Your task to perform on an android device: toggle sleep mode Image 0: 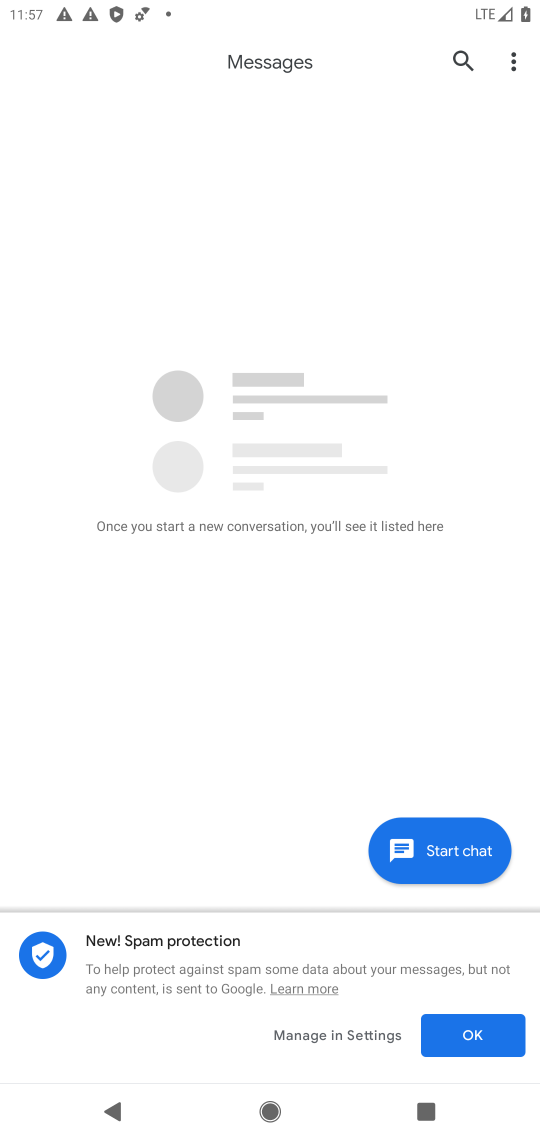
Step 0: press home button
Your task to perform on an android device: toggle sleep mode Image 1: 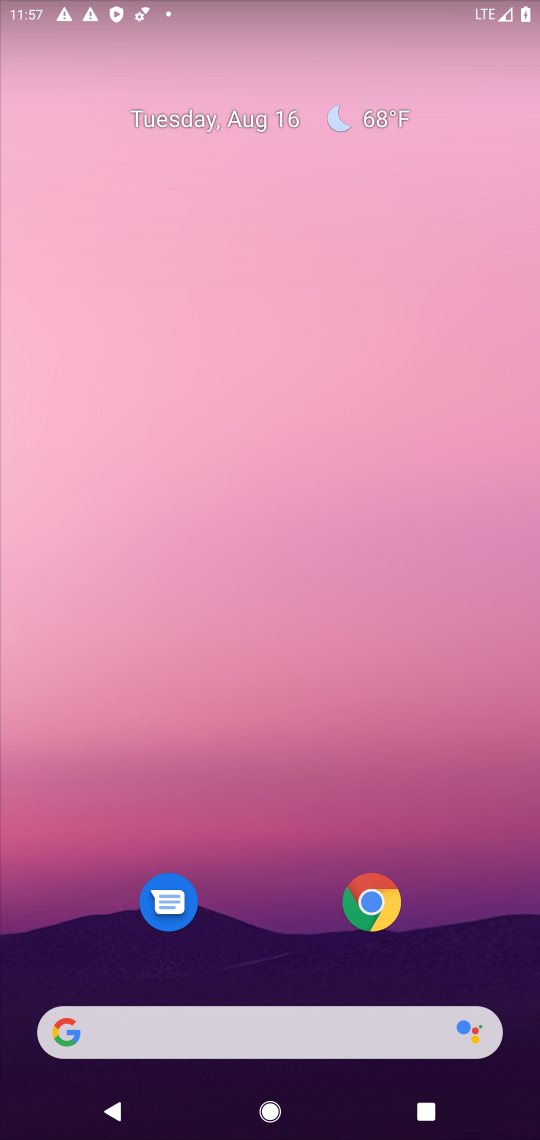
Step 1: drag from (219, 895) to (248, 184)
Your task to perform on an android device: toggle sleep mode Image 2: 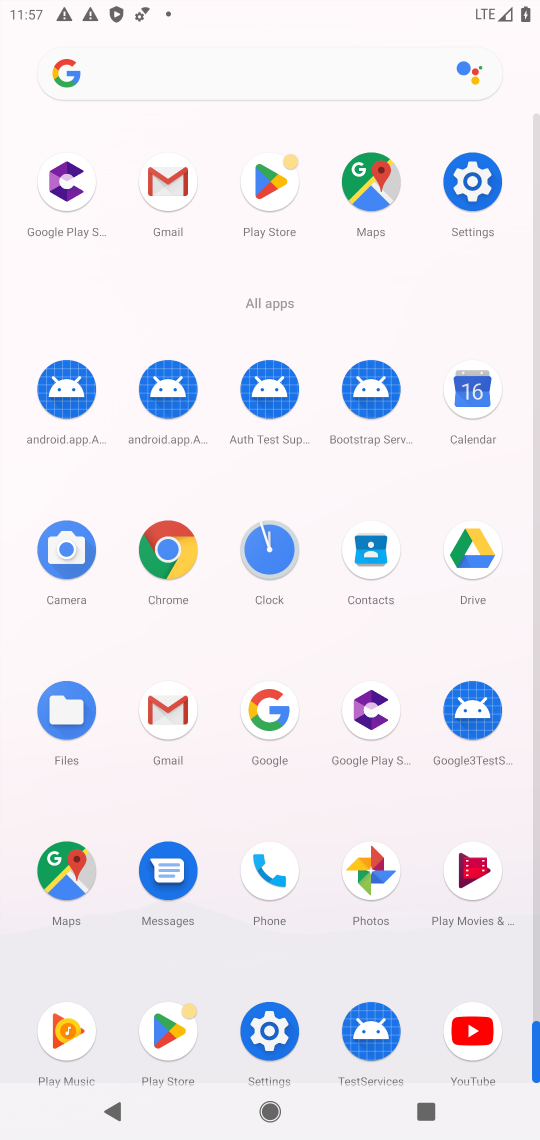
Step 2: click (263, 1017)
Your task to perform on an android device: toggle sleep mode Image 3: 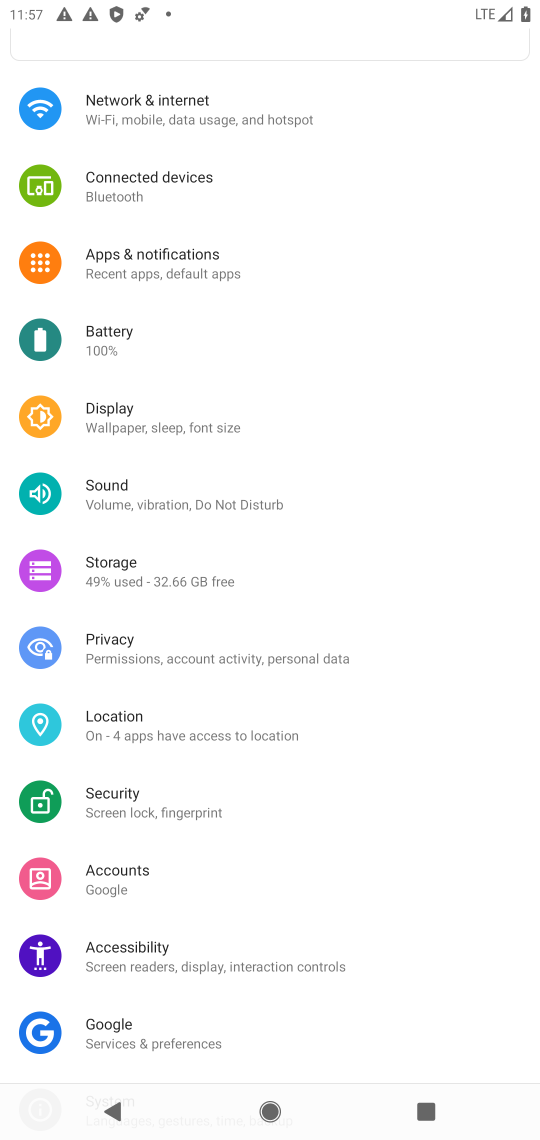
Step 3: drag from (268, 119) to (222, 1097)
Your task to perform on an android device: toggle sleep mode Image 4: 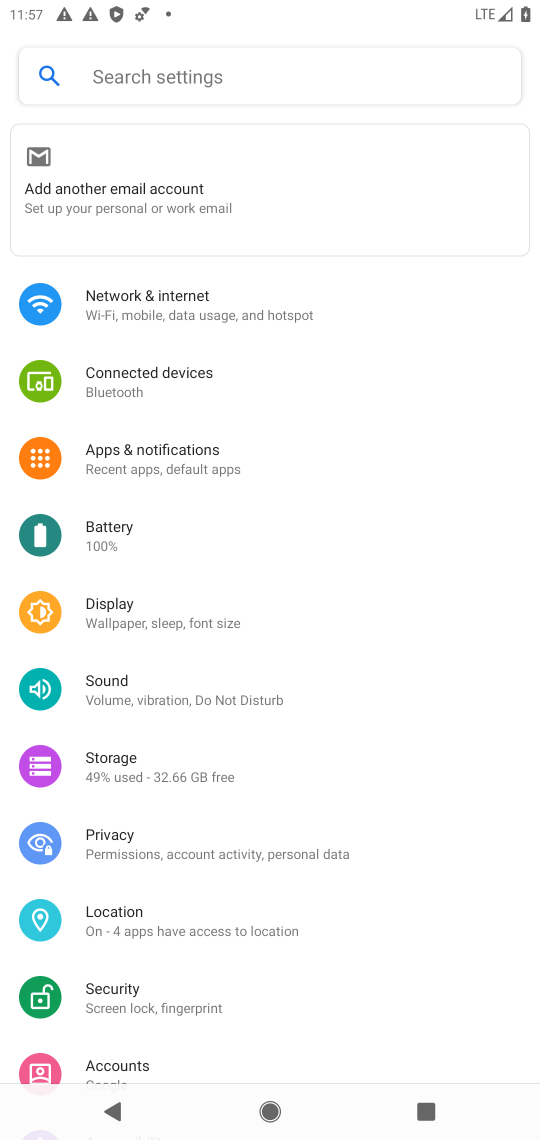
Step 4: click (281, 53)
Your task to perform on an android device: toggle sleep mode Image 5: 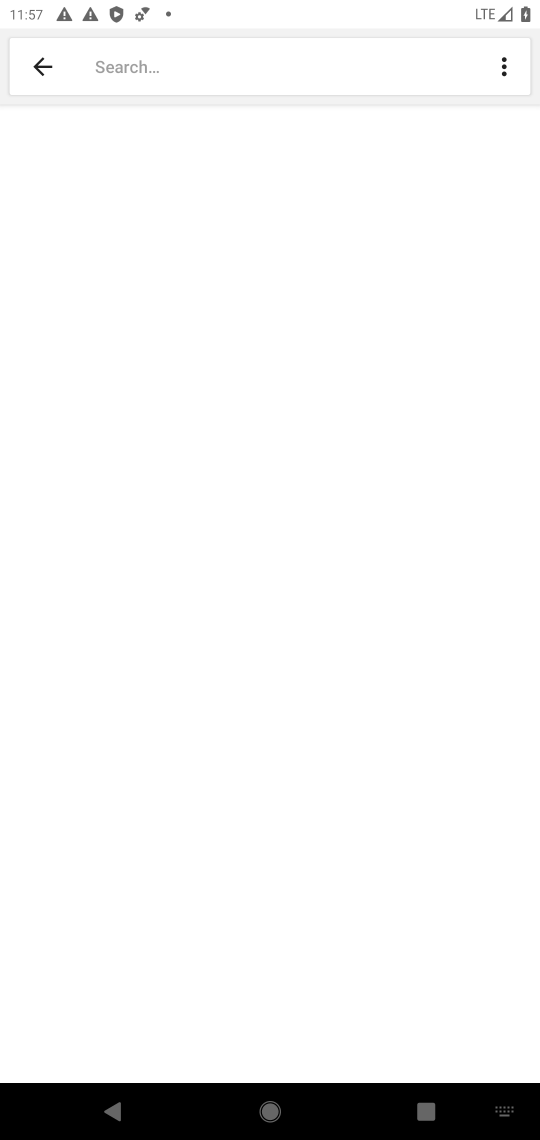
Step 5: type "sleep mode"
Your task to perform on an android device: toggle sleep mode Image 6: 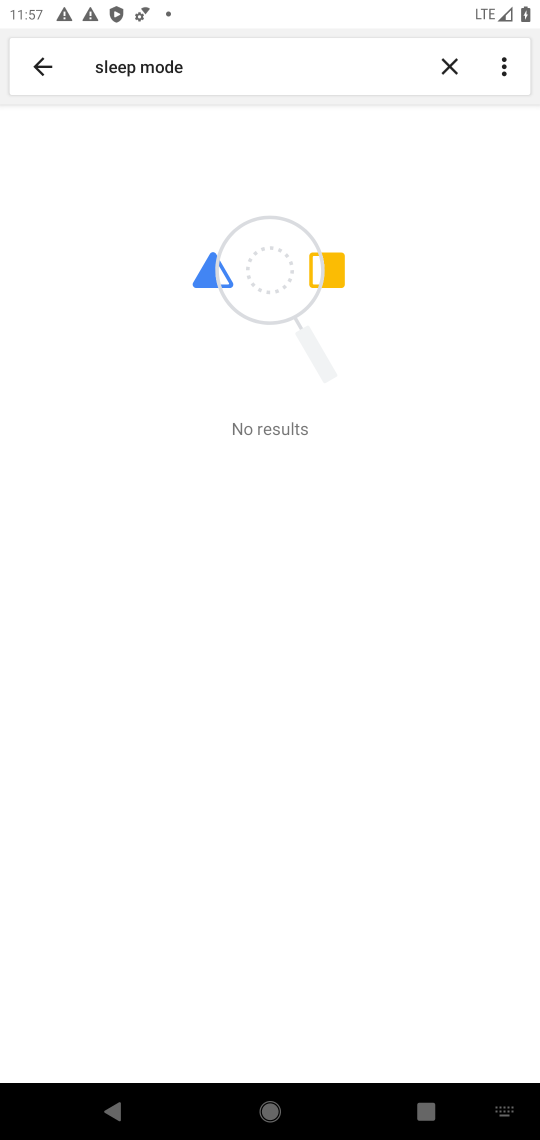
Step 6: task complete